Your task to perform on an android device: Go to privacy settings Image 0: 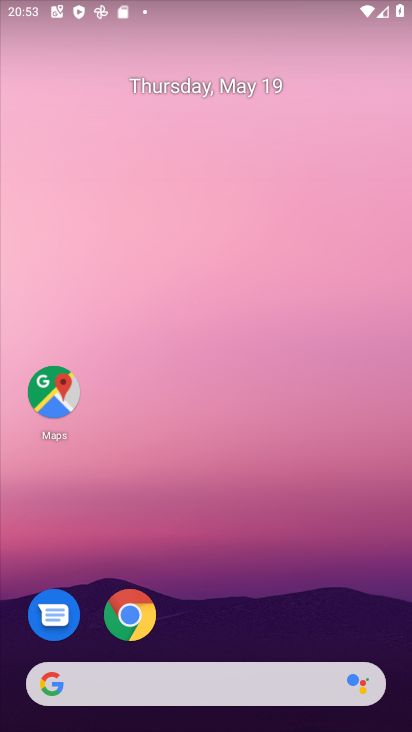
Step 0: press home button
Your task to perform on an android device: Go to privacy settings Image 1: 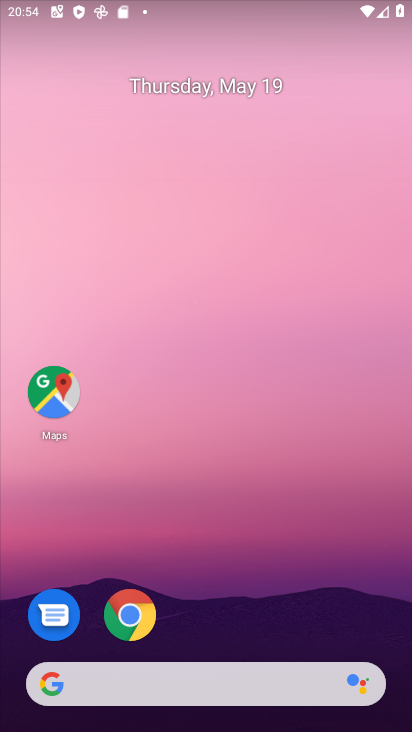
Step 1: drag from (228, 530) to (240, 108)
Your task to perform on an android device: Go to privacy settings Image 2: 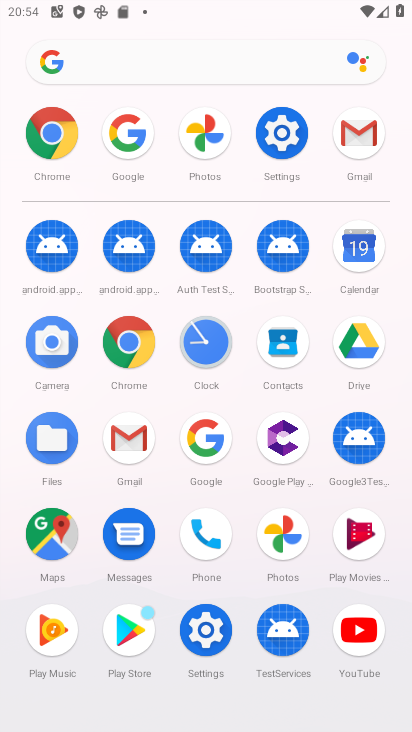
Step 2: click (290, 127)
Your task to perform on an android device: Go to privacy settings Image 3: 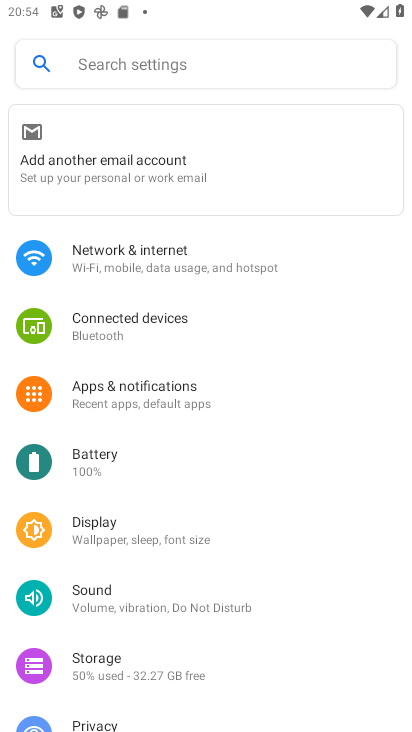
Step 3: drag from (136, 681) to (160, 358)
Your task to perform on an android device: Go to privacy settings Image 4: 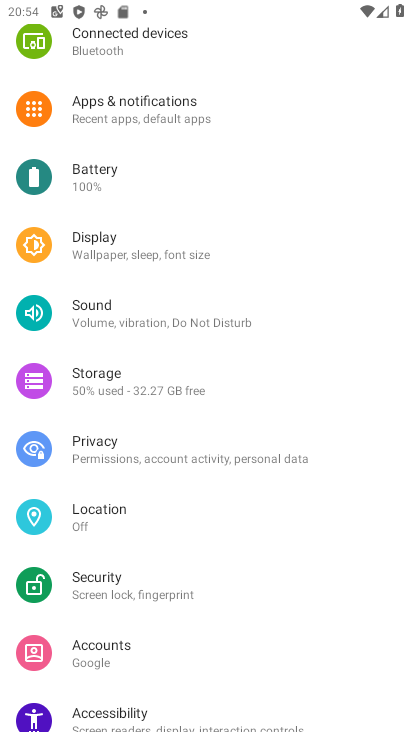
Step 4: click (125, 451)
Your task to perform on an android device: Go to privacy settings Image 5: 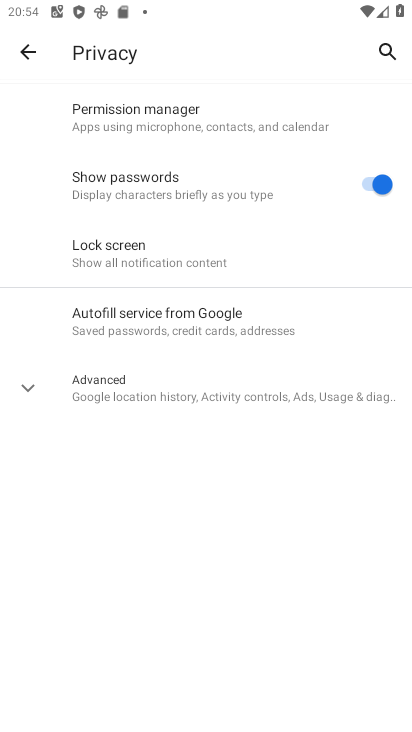
Step 5: task complete